Your task to perform on an android device: add a contact Image 0: 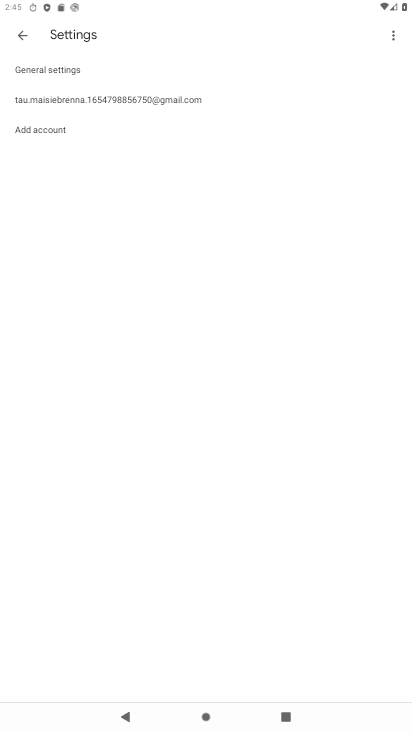
Step 0: press home button
Your task to perform on an android device: add a contact Image 1: 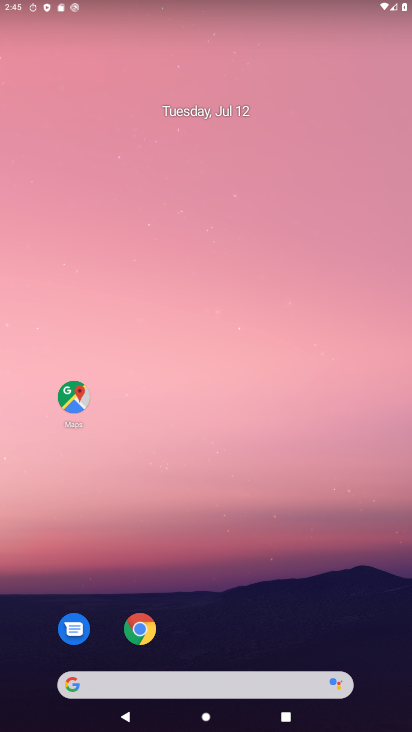
Step 1: drag from (229, 632) to (237, 143)
Your task to perform on an android device: add a contact Image 2: 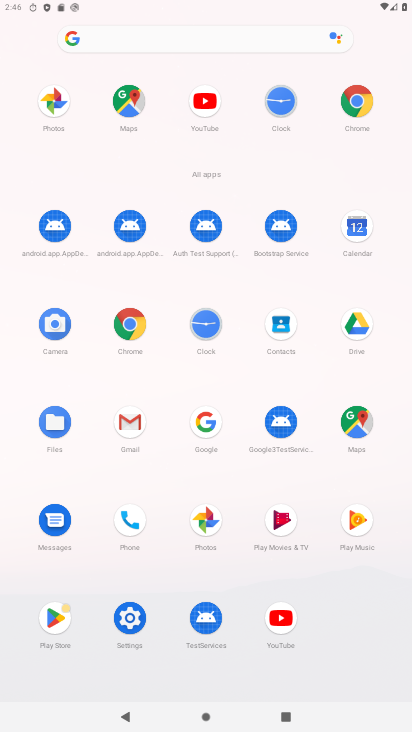
Step 2: click (279, 317)
Your task to perform on an android device: add a contact Image 3: 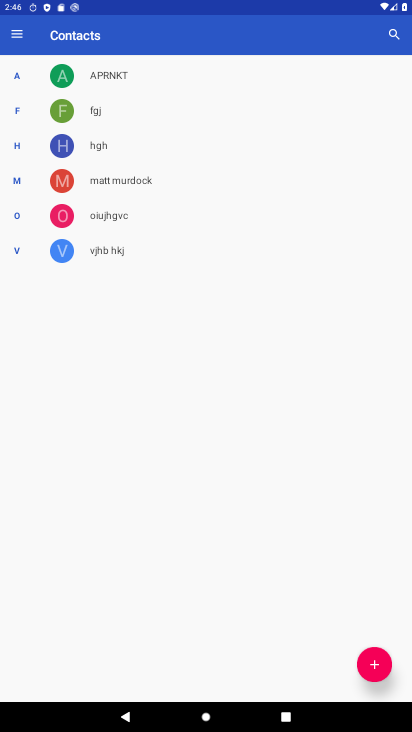
Step 3: task complete